Your task to perform on an android device: uninstall "TextNow: Call + Text Unlimited" Image 0: 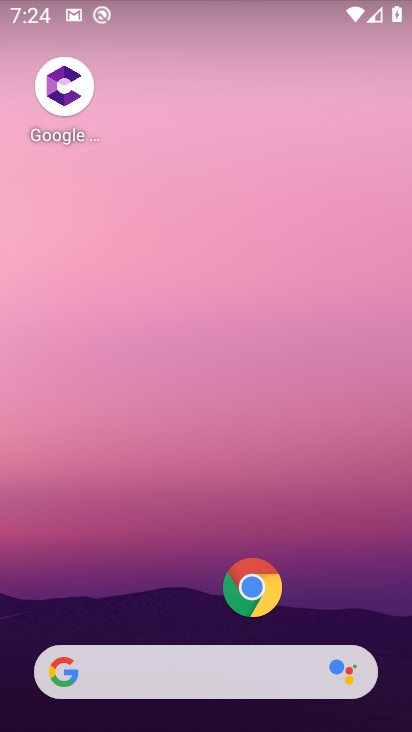
Step 0: drag from (187, 637) to (195, 169)
Your task to perform on an android device: uninstall "TextNow: Call + Text Unlimited" Image 1: 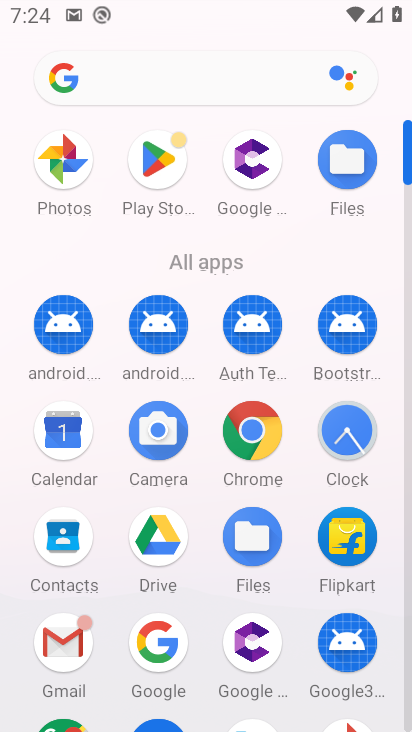
Step 1: drag from (171, 165) to (0, 277)
Your task to perform on an android device: uninstall "TextNow: Call + Text Unlimited" Image 2: 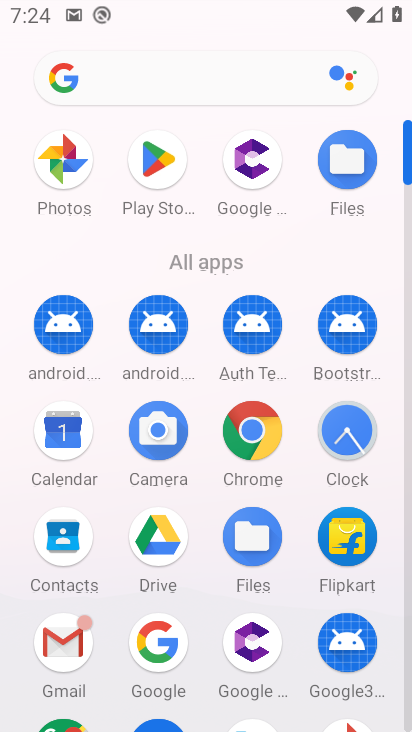
Step 2: drag from (169, 195) to (134, 141)
Your task to perform on an android device: uninstall "TextNow: Call + Text Unlimited" Image 3: 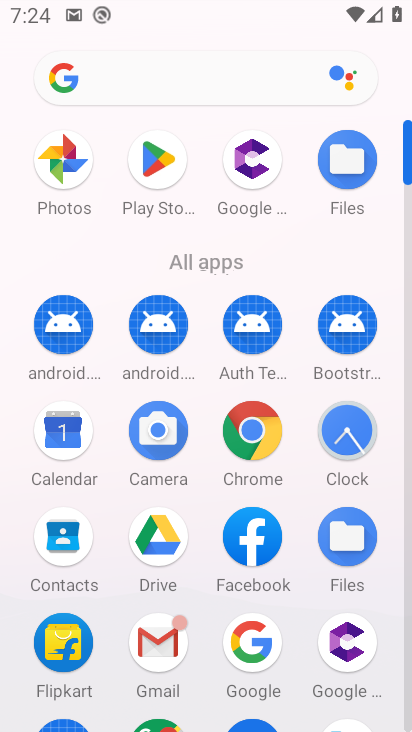
Step 3: drag from (144, 146) to (97, 270)
Your task to perform on an android device: uninstall "TextNow: Call + Text Unlimited" Image 4: 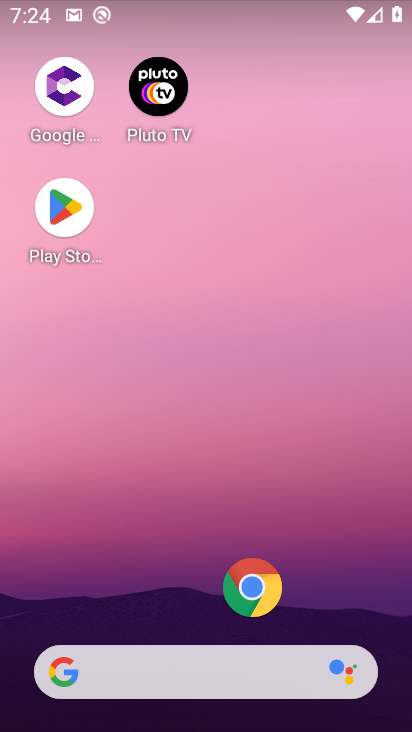
Step 4: click (76, 243)
Your task to perform on an android device: uninstall "TextNow: Call + Text Unlimited" Image 5: 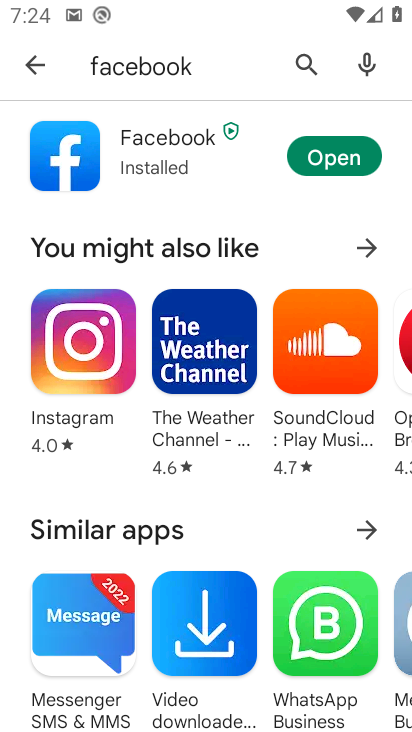
Step 5: click (297, 76)
Your task to perform on an android device: uninstall "TextNow: Call + Text Unlimited" Image 6: 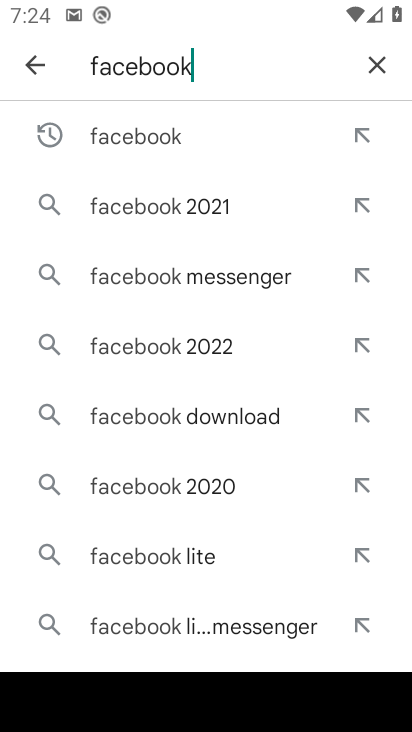
Step 6: click (361, 64)
Your task to perform on an android device: uninstall "TextNow: Call + Text Unlimited" Image 7: 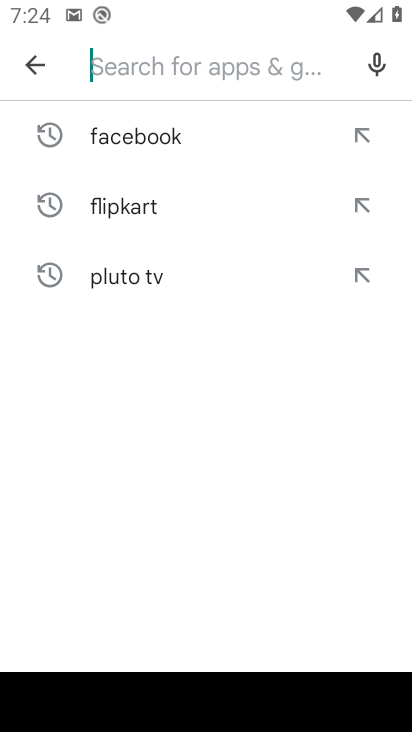
Step 7: type "textnow"
Your task to perform on an android device: uninstall "TextNow: Call + Text Unlimited" Image 8: 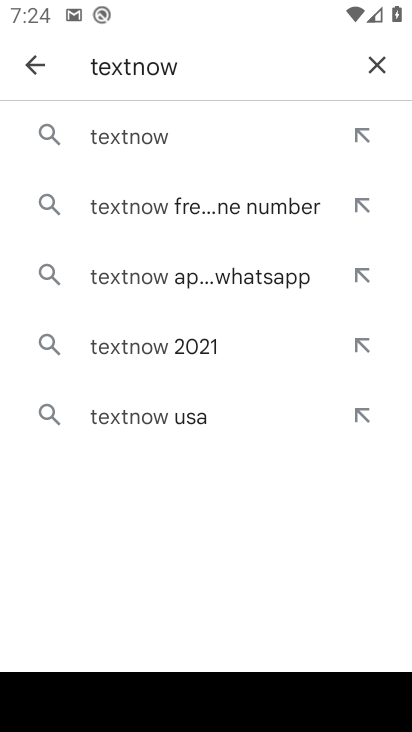
Step 8: click (235, 142)
Your task to perform on an android device: uninstall "TextNow: Call + Text Unlimited" Image 9: 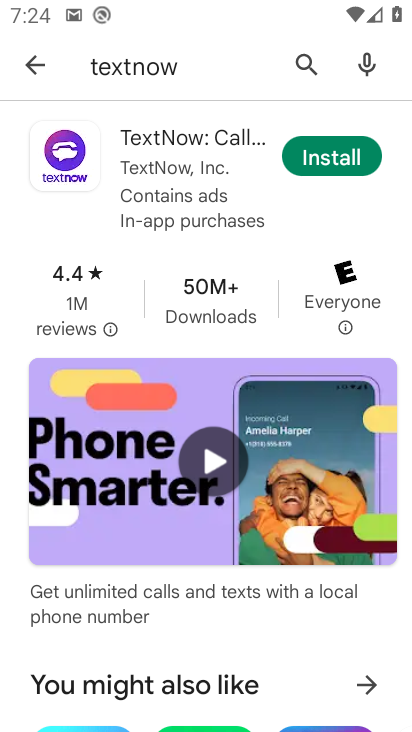
Step 9: click (356, 145)
Your task to perform on an android device: uninstall "TextNow: Call + Text Unlimited" Image 10: 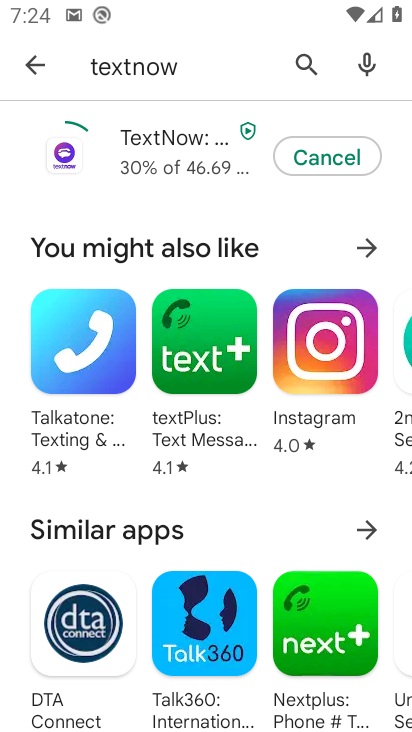
Step 10: task complete